Your task to perform on an android device: Open the stopwatch Image 0: 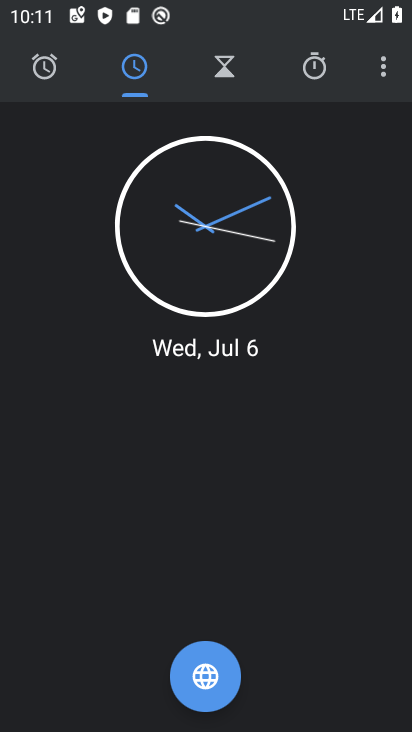
Step 0: press home button
Your task to perform on an android device: Open the stopwatch Image 1: 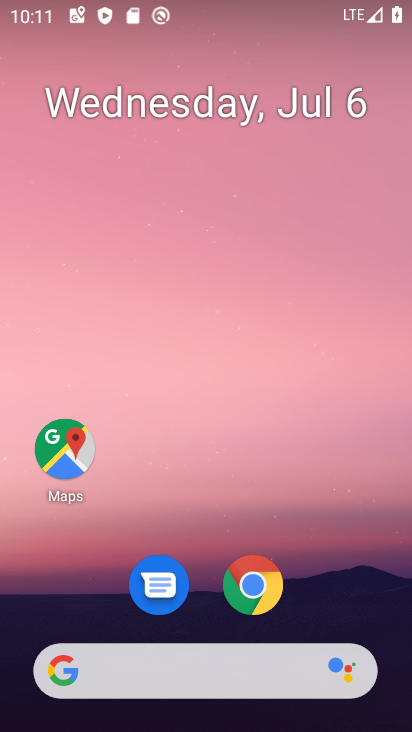
Step 1: drag from (242, 510) to (267, 41)
Your task to perform on an android device: Open the stopwatch Image 2: 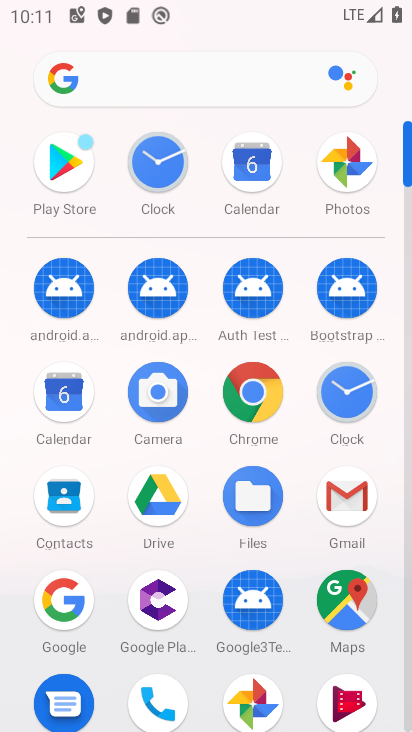
Step 2: click (151, 182)
Your task to perform on an android device: Open the stopwatch Image 3: 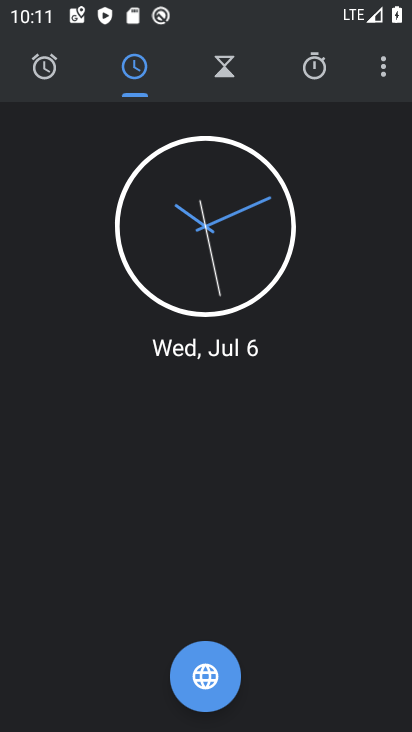
Step 3: click (310, 76)
Your task to perform on an android device: Open the stopwatch Image 4: 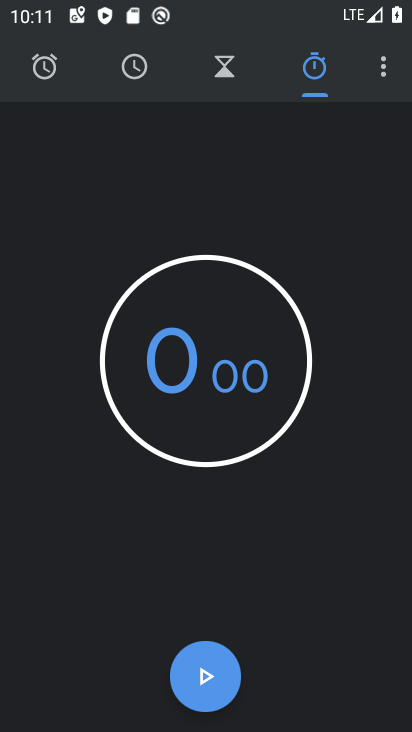
Step 4: task complete